Your task to perform on an android device: allow notifications from all sites in the chrome app Image 0: 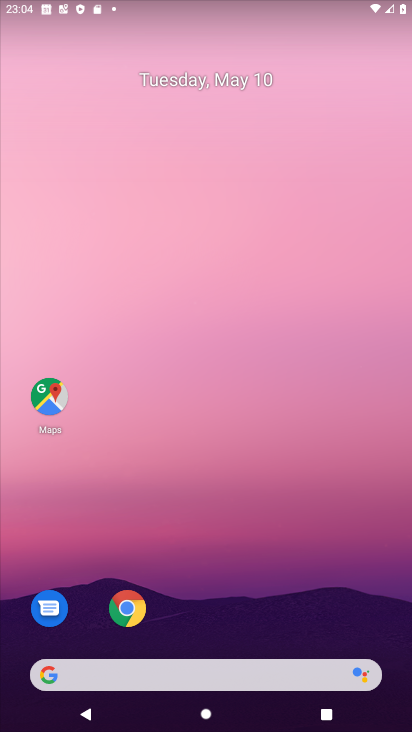
Step 0: drag from (246, 621) to (234, 286)
Your task to perform on an android device: allow notifications from all sites in the chrome app Image 1: 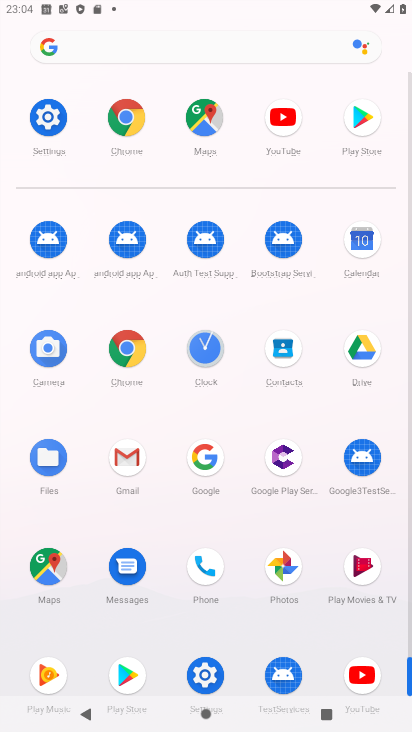
Step 1: click (53, 119)
Your task to perform on an android device: allow notifications from all sites in the chrome app Image 2: 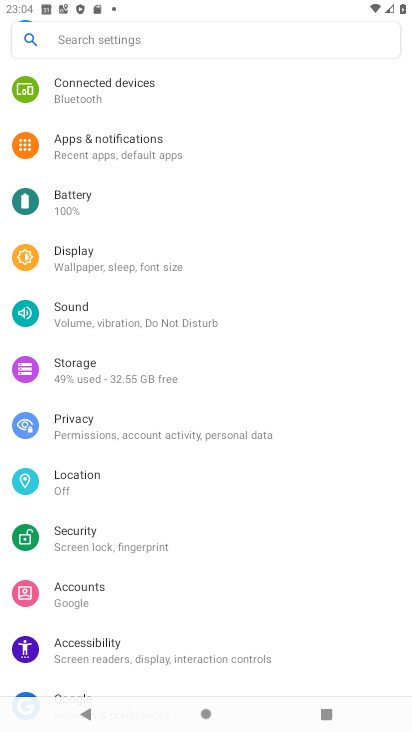
Step 2: press home button
Your task to perform on an android device: allow notifications from all sites in the chrome app Image 3: 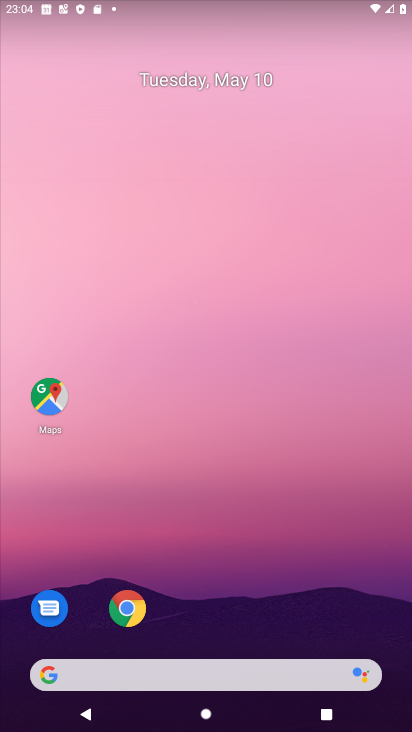
Step 3: drag from (243, 611) to (203, 225)
Your task to perform on an android device: allow notifications from all sites in the chrome app Image 4: 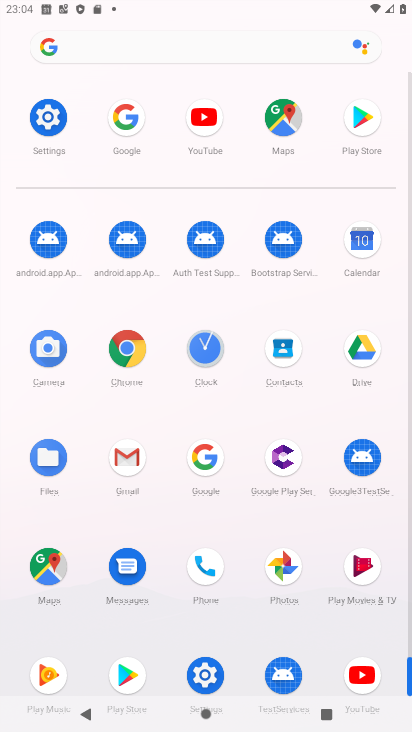
Step 4: click (126, 338)
Your task to perform on an android device: allow notifications from all sites in the chrome app Image 5: 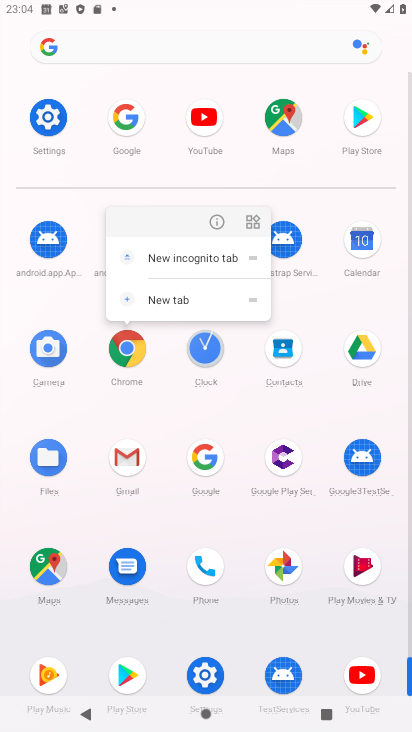
Step 5: click (136, 345)
Your task to perform on an android device: allow notifications from all sites in the chrome app Image 6: 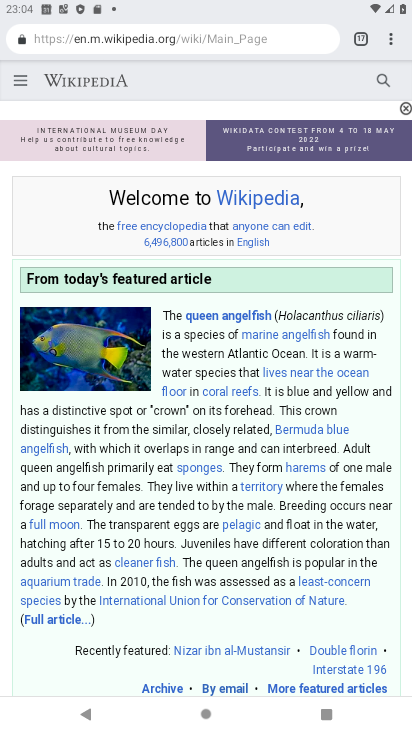
Step 6: click (383, 35)
Your task to perform on an android device: allow notifications from all sites in the chrome app Image 7: 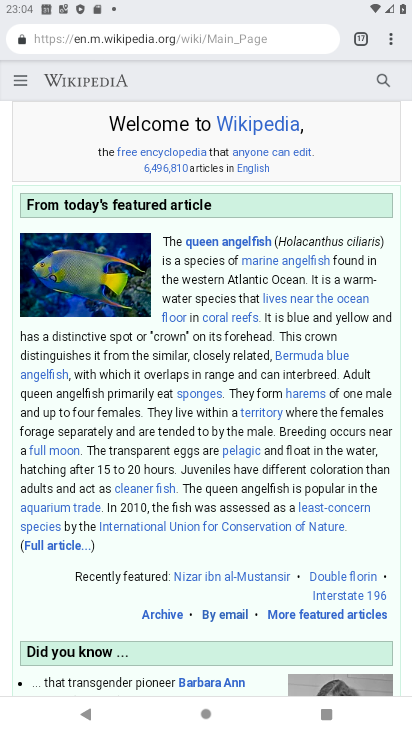
Step 7: click (381, 39)
Your task to perform on an android device: allow notifications from all sites in the chrome app Image 8: 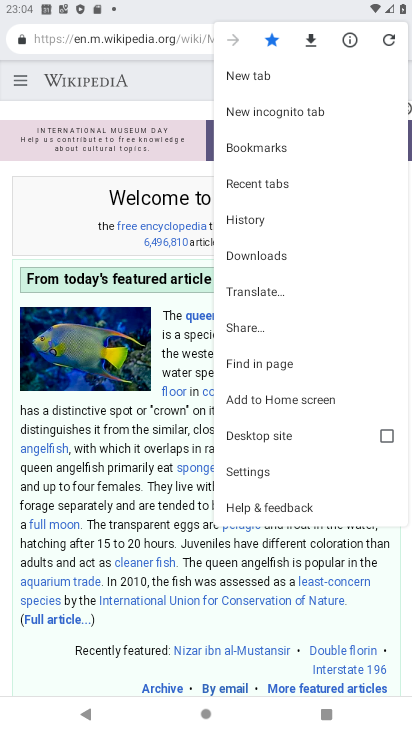
Step 8: click (271, 470)
Your task to perform on an android device: allow notifications from all sites in the chrome app Image 9: 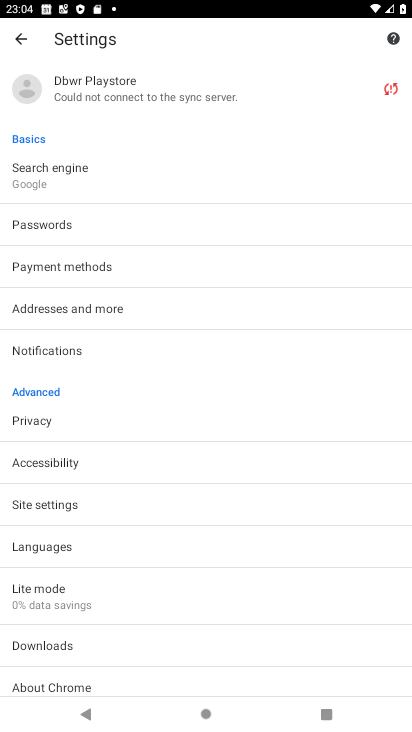
Step 9: click (42, 504)
Your task to perform on an android device: allow notifications from all sites in the chrome app Image 10: 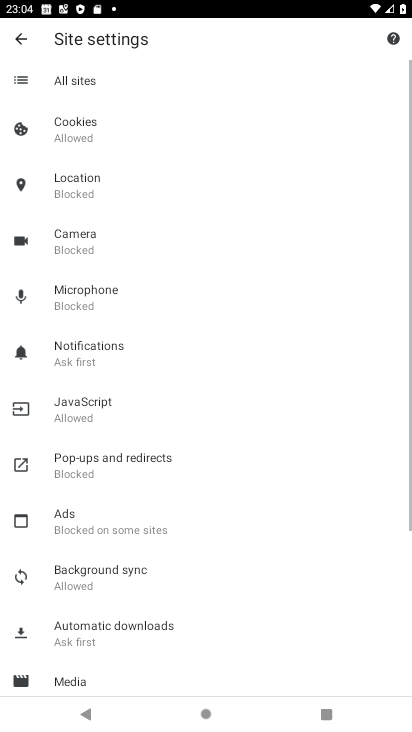
Step 10: click (99, 135)
Your task to perform on an android device: allow notifications from all sites in the chrome app Image 11: 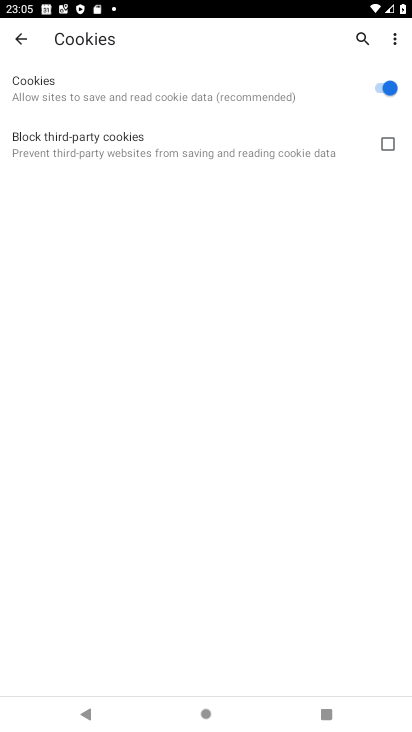
Step 11: click (16, 36)
Your task to perform on an android device: allow notifications from all sites in the chrome app Image 12: 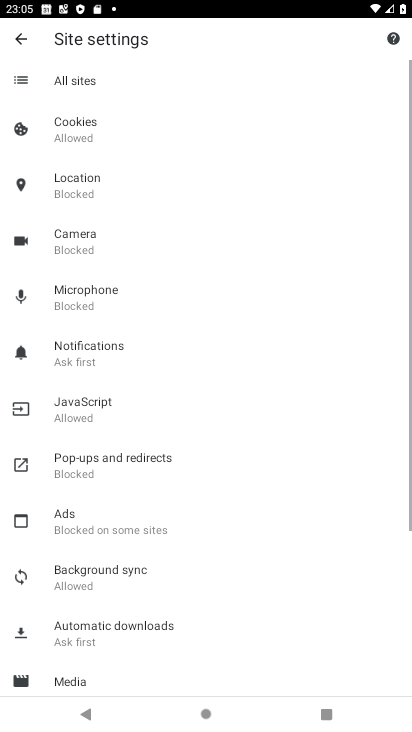
Step 12: click (131, 187)
Your task to perform on an android device: allow notifications from all sites in the chrome app Image 13: 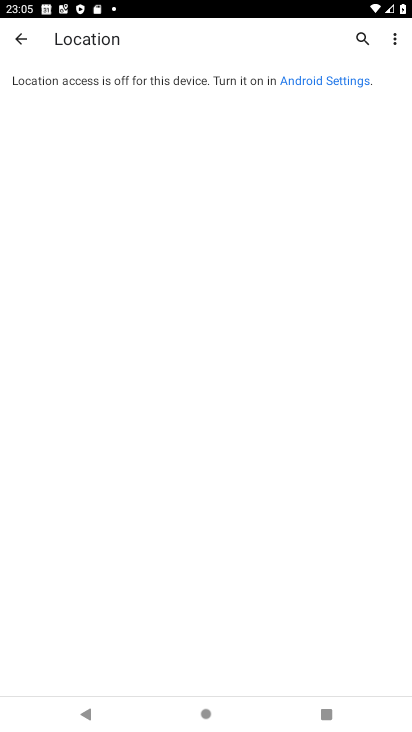
Step 13: click (16, 34)
Your task to perform on an android device: allow notifications from all sites in the chrome app Image 14: 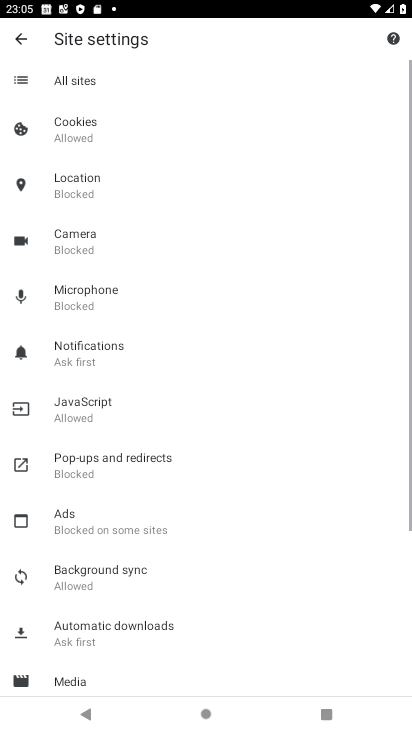
Step 14: click (100, 272)
Your task to perform on an android device: allow notifications from all sites in the chrome app Image 15: 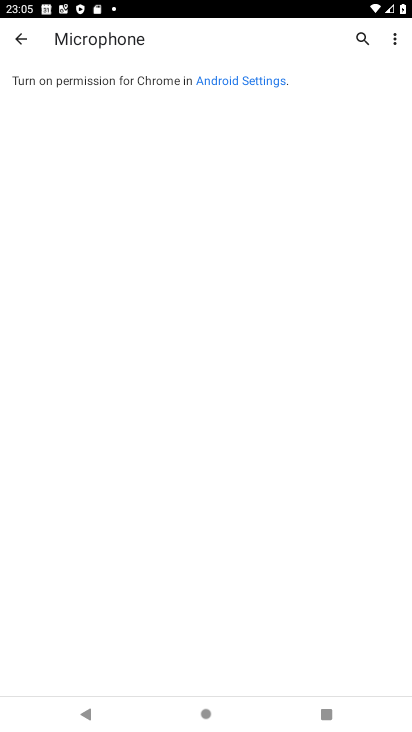
Step 15: click (25, 37)
Your task to perform on an android device: allow notifications from all sites in the chrome app Image 16: 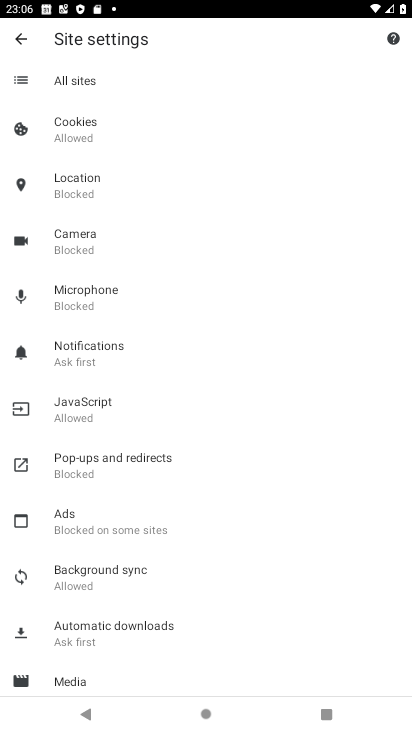
Step 16: click (114, 414)
Your task to perform on an android device: allow notifications from all sites in the chrome app Image 17: 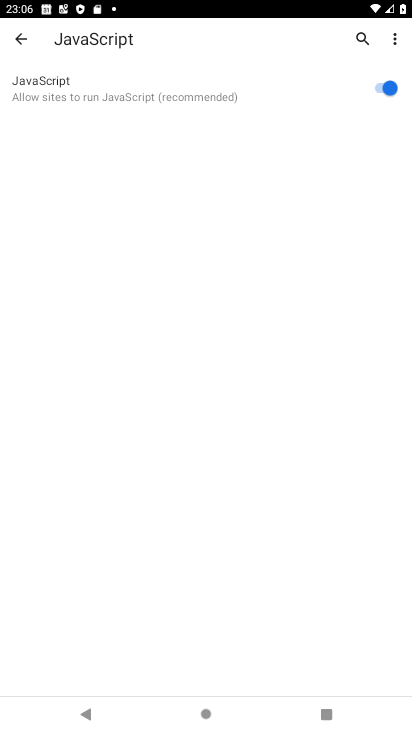
Step 17: task complete